Your task to perform on an android device: Open settings on Google Maps Image 0: 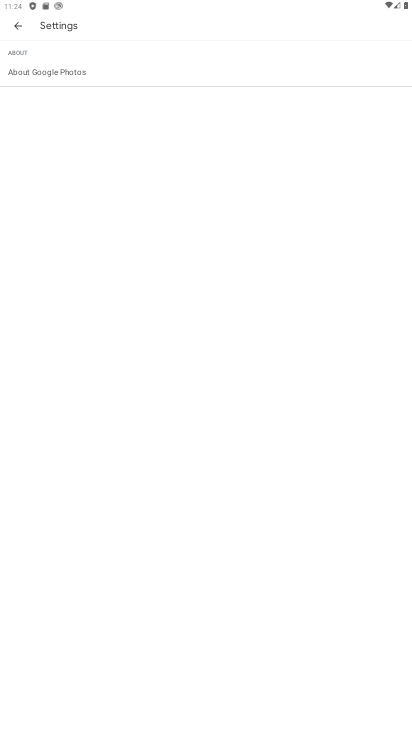
Step 0: press home button
Your task to perform on an android device: Open settings on Google Maps Image 1: 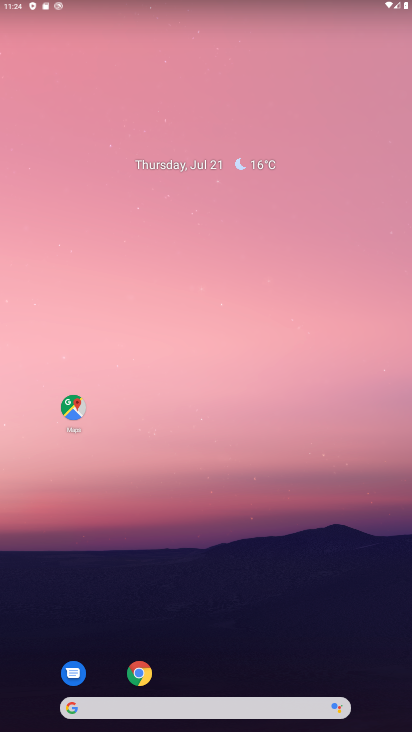
Step 1: drag from (189, 615) to (241, 0)
Your task to perform on an android device: Open settings on Google Maps Image 2: 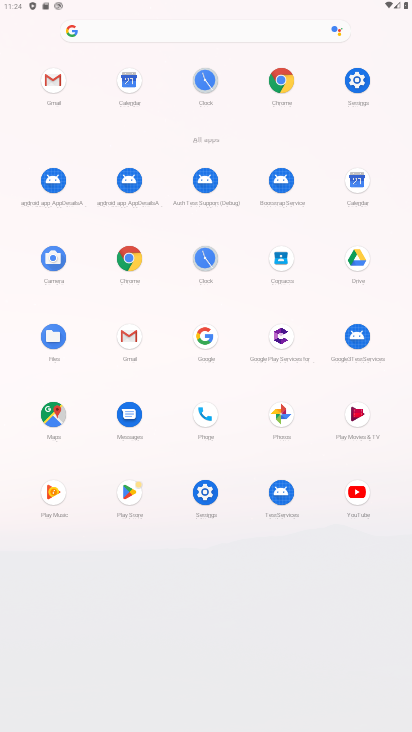
Step 2: click (64, 418)
Your task to perform on an android device: Open settings on Google Maps Image 3: 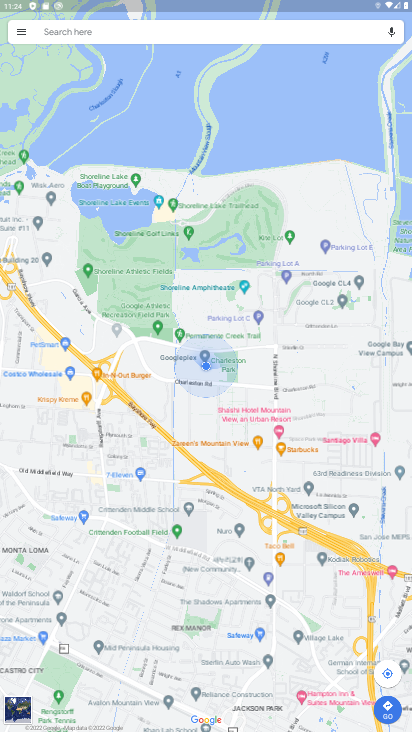
Step 3: task complete